Your task to perform on an android device: What's on my calendar today? Image 0: 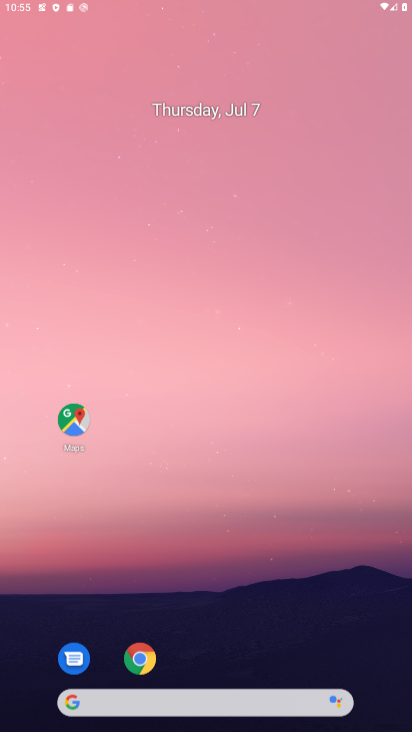
Step 0: press home button
Your task to perform on an android device: What's on my calendar today? Image 1: 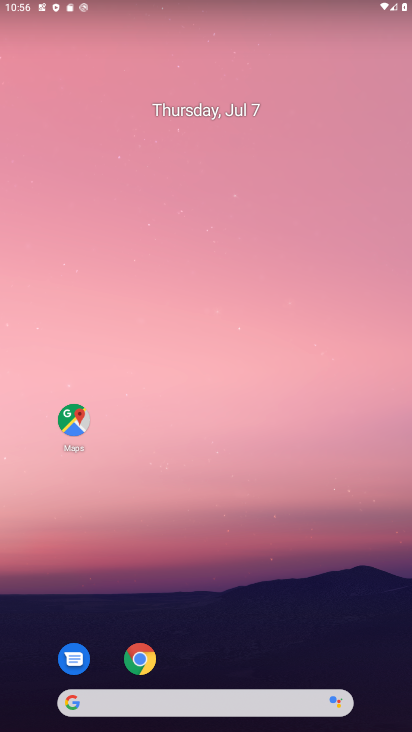
Step 1: drag from (216, 586) to (221, 55)
Your task to perform on an android device: What's on my calendar today? Image 2: 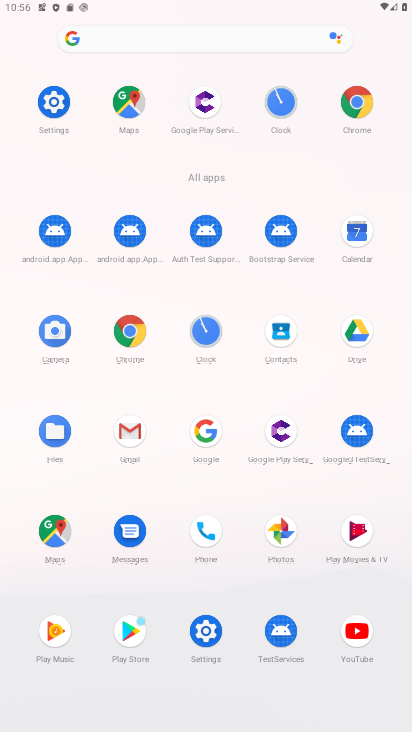
Step 2: click (357, 235)
Your task to perform on an android device: What's on my calendar today? Image 3: 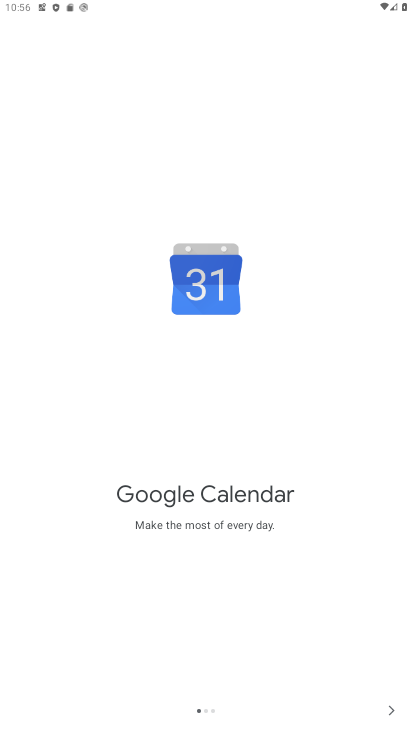
Step 3: click (385, 706)
Your task to perform on an android device: What's on my calendar today? Image 4: 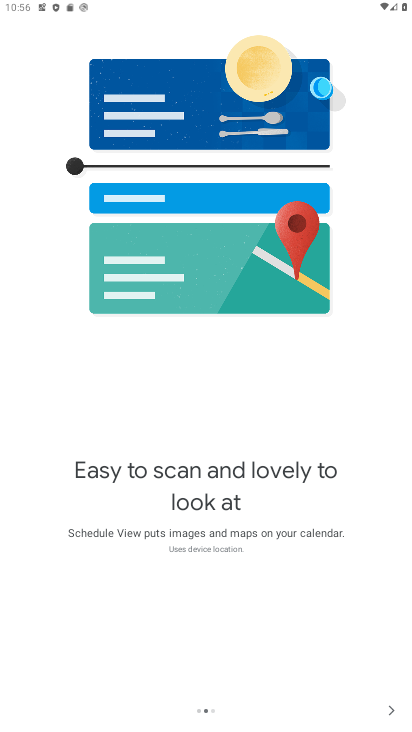
Step 4: click (388, 707)
Your task to perform on an android device: What's on my calendar today? Image 5: 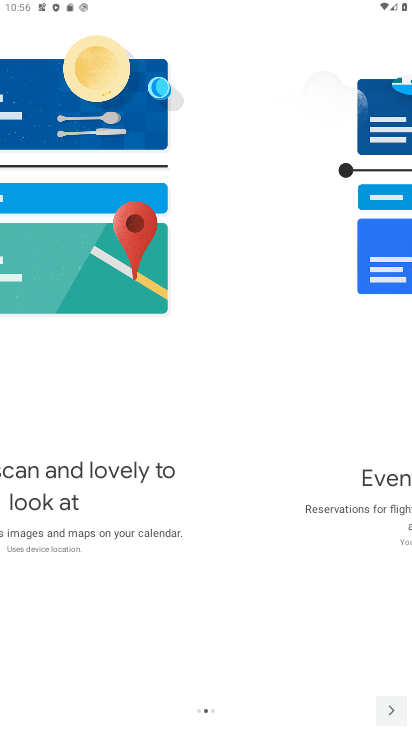
Step 5: click (388, 707)
Your task to perform on an android device: What's on my calendar today? Image 6: 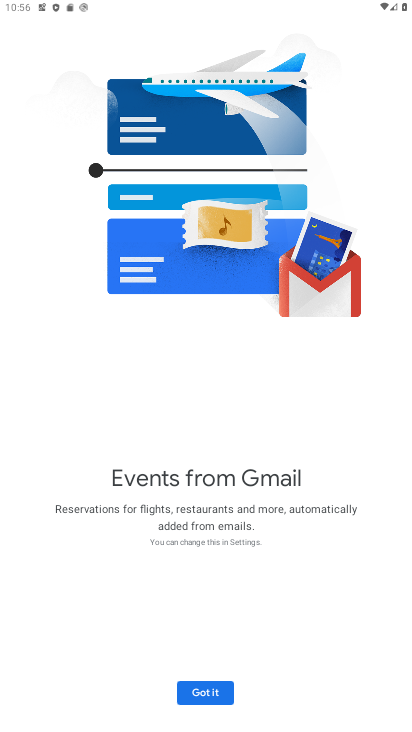
Step 6: click (194, 693)
Your task to perform on an android device: What's on my calendar today? Image 7: 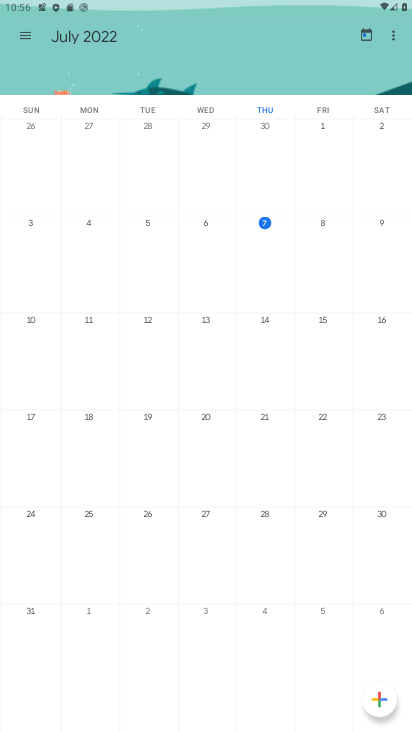
Step 7: click (256, 224)
Your task to perform on an android device: What's on my calendar today? Image 8: 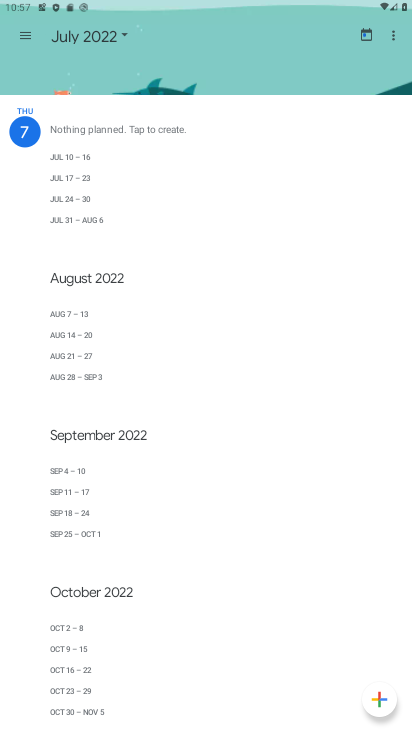
Step 8: click (32, 126)
Your task to perform on an android device: What's on my calendar today? Image 9: 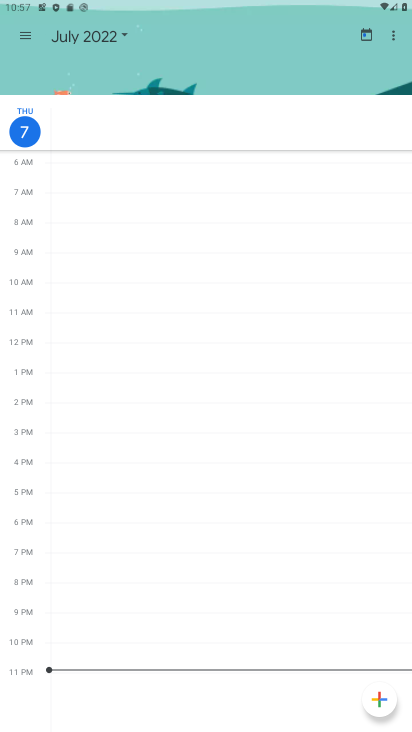
Step 9: task complete